Your task to perform on an android device: Open settings on Google Maps Image 0: 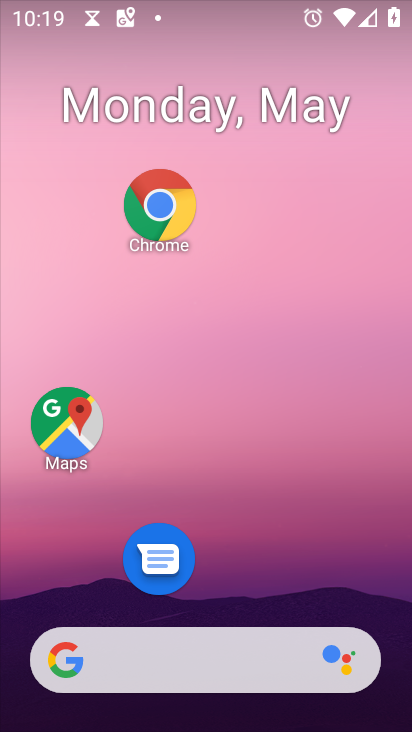
Step 0: press back button
Your task to perform on an android device: Open settings on Google Maps Image 1: 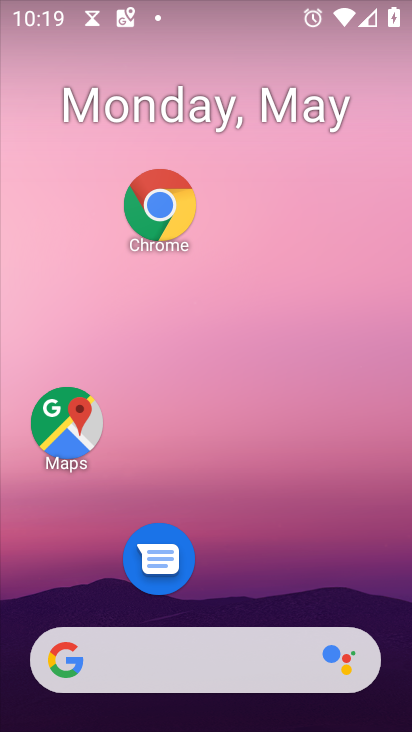
Step 1: drag from (235, 697) to (170, 170)
Your task to perform on an android device: Open settings on Google Maps Image 2: 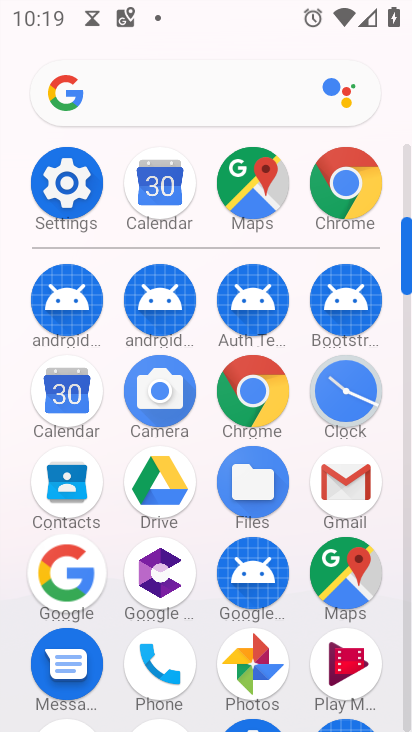
Step 2: click (61, 554)
Your task to perform on an android device: Open settings on Google Maps Image 3: 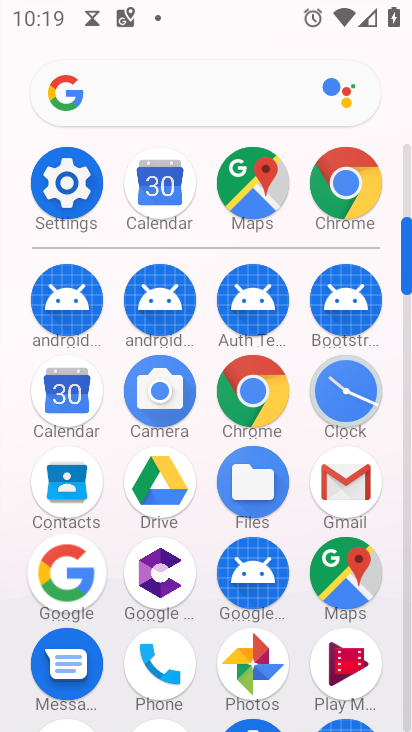
Step 3: click (53, 568)
Your task to perform on an android device: Open settings on Google Maps Image 4: 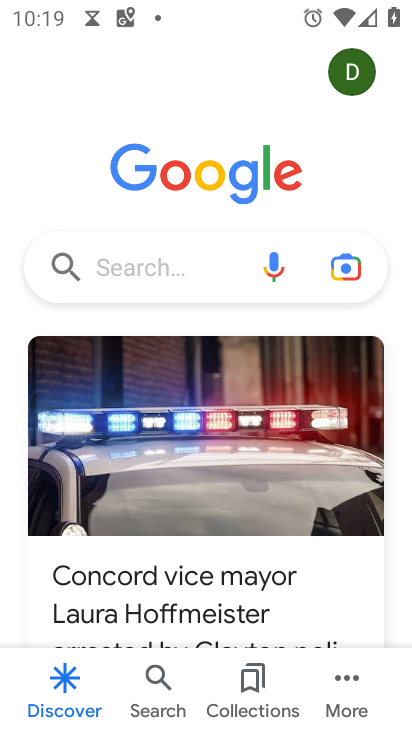
Step 4: press home button
Your task to perform on an android device: Open settings on Google Maps Image 5: 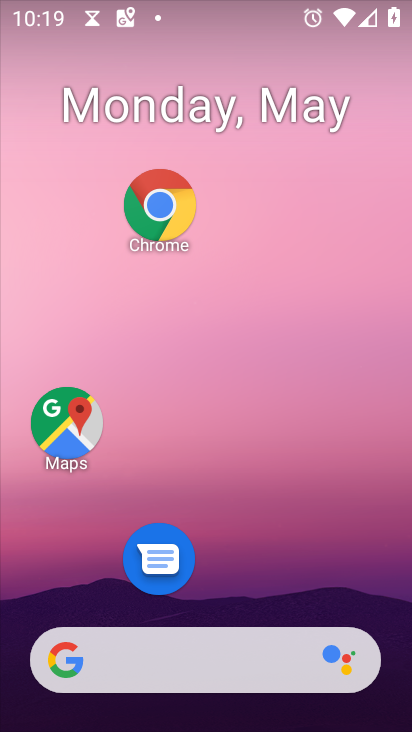
Step 5: click (194, 234)
Your task to perform on an android device: Open settings on Google Maps Image 6: 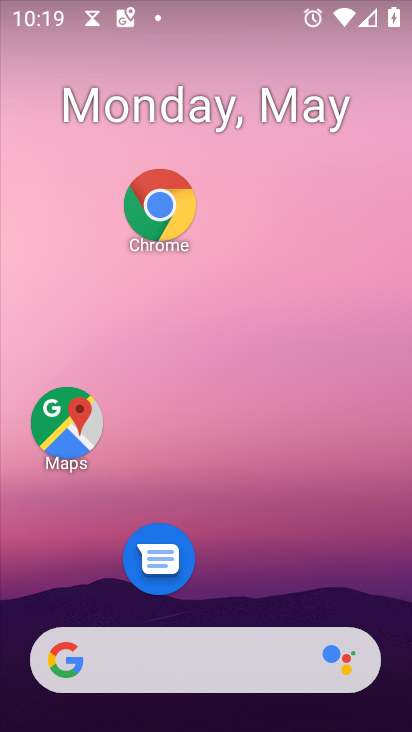
Step 6: drag from (248, 659) to (188, 3)
Your task to perform on an android device: Open settings on Google Maps Image 7: 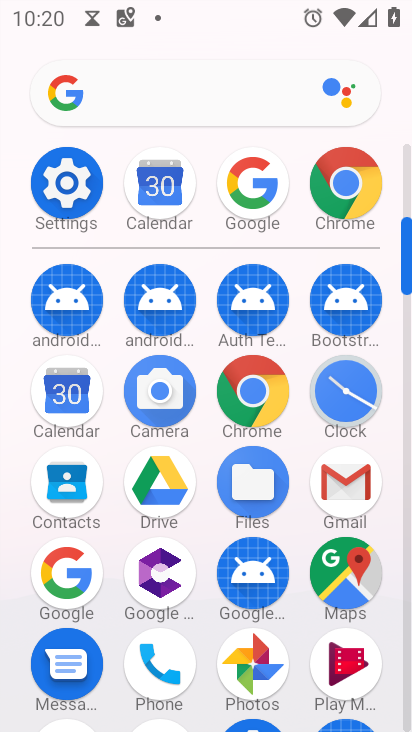
Step 7: click (335, 560)
Your task to perform on an android device: Open settings on Google Maps Image 8: 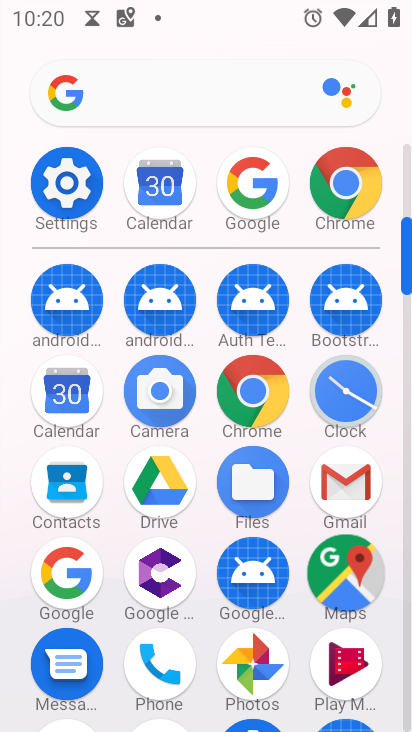
Step 8: click (336, 565)
Your task to perform on an android device: Open settings on Google Maps Image 9: 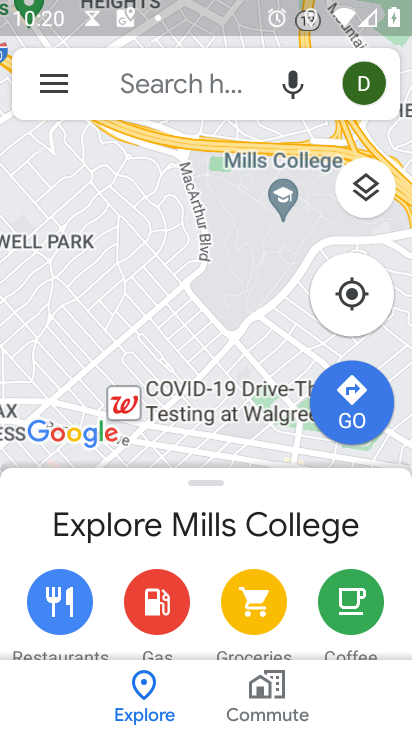
Step 9: task complete